Your task to perform on an android device: set an alarm Image 0: 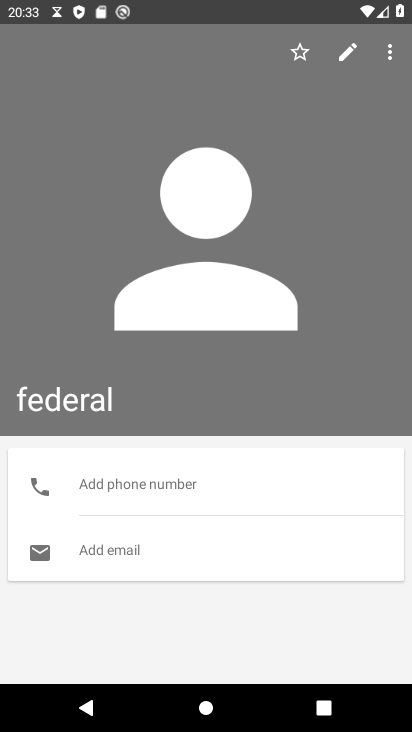
Step 0: press home button
Your task to perform on an android device: set an alarm Image 1: 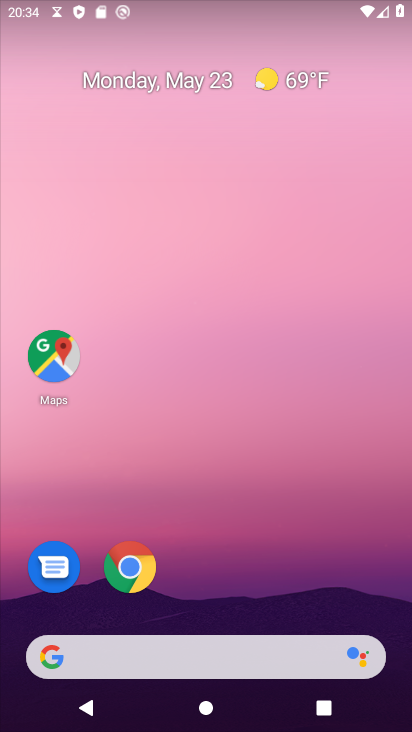
Step 1: drag from (239, 589) to (272, 0)
Your task to perform on an android device: set an alarm Image 2: 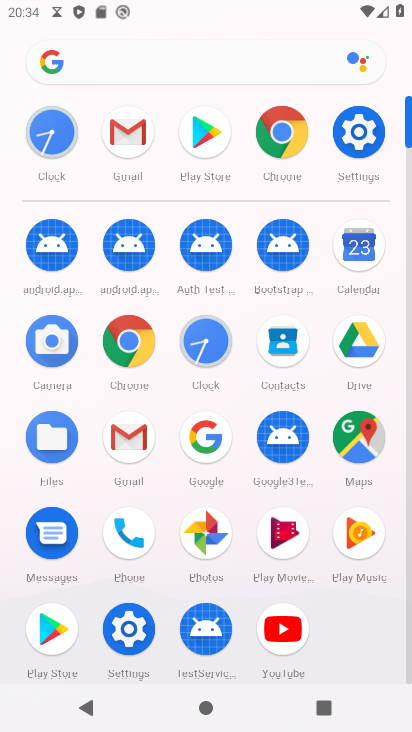
Step 2: click (204, 336)
Your task to perform on an android device: set an alarm Image 3: 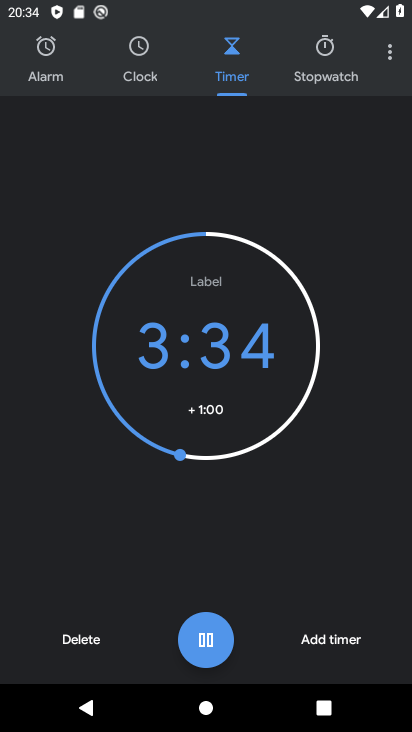
Step 3: click (55, 64)
Your task to perform on an android device: set an alarm Image 4: 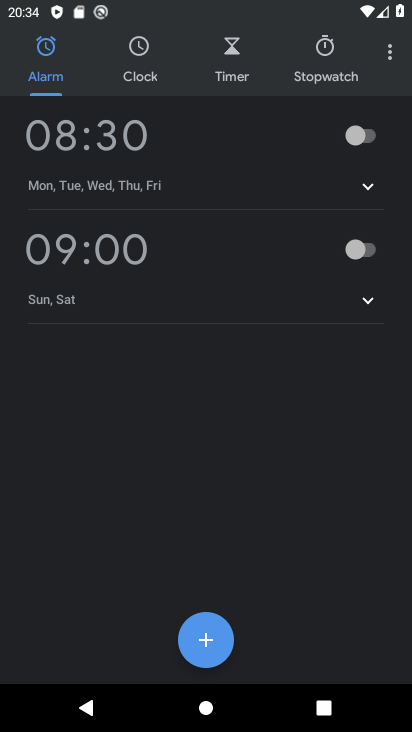
Step 4: click (90, 166)
Your task to perform on an android device: set an alarm Image 5: 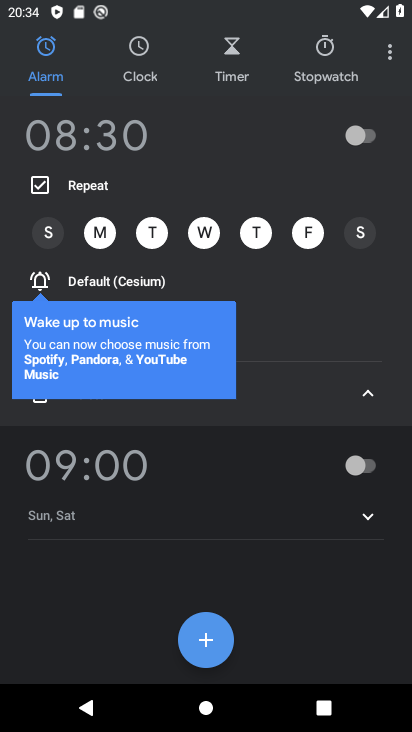
Step 5: click (121, 134)
Your task to perform on an android device: set an alarm Image 6: 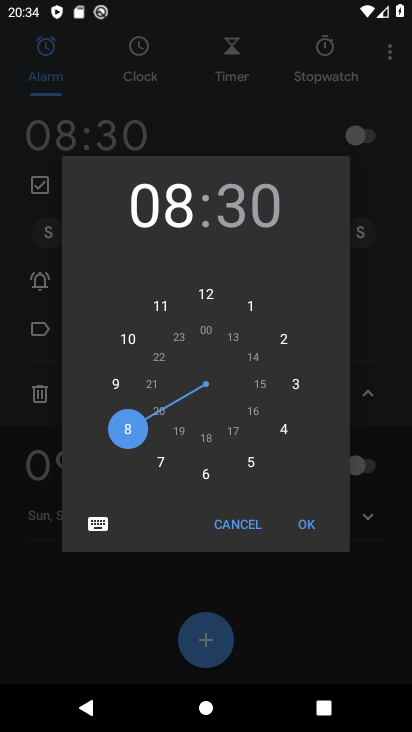
Step 6: click (139, 347)
Your task to perform on an android device: set an alarm Image 7: 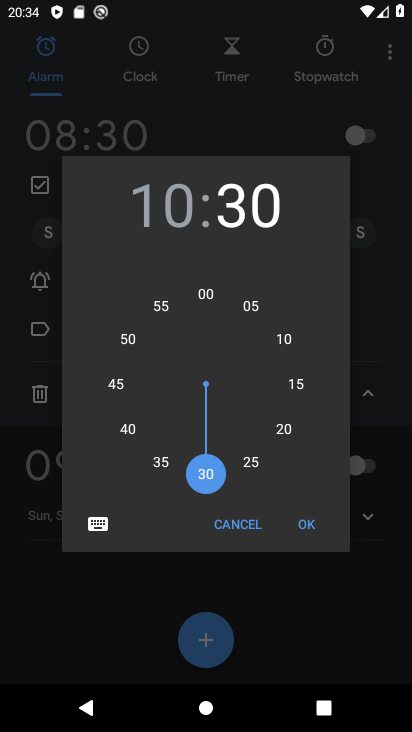
Step 7: click (214, 291)
Your task to perform on an android device: set an alarm Image 8: 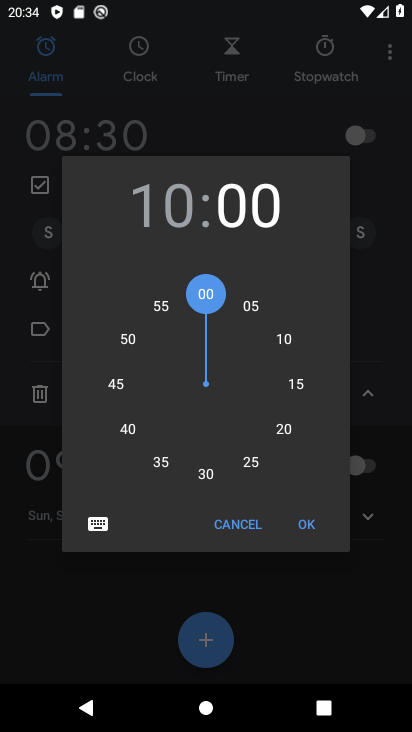
Step 8: click (306, 519)
Your task to perform on an android device: set an alarm Image 9: 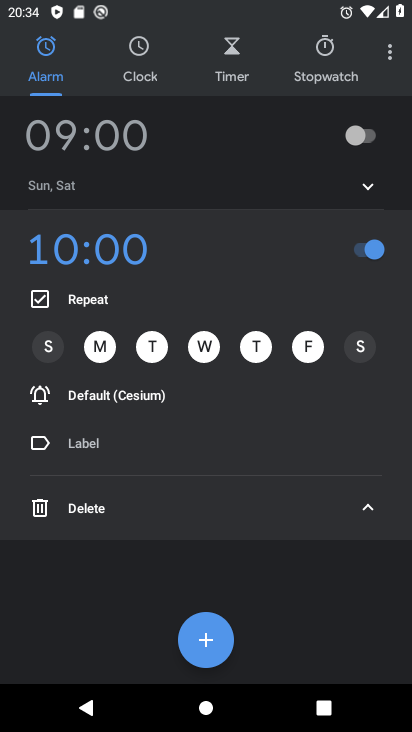
Step 9: task complete